Your task to perform on an android device: show emergency info Image 0: 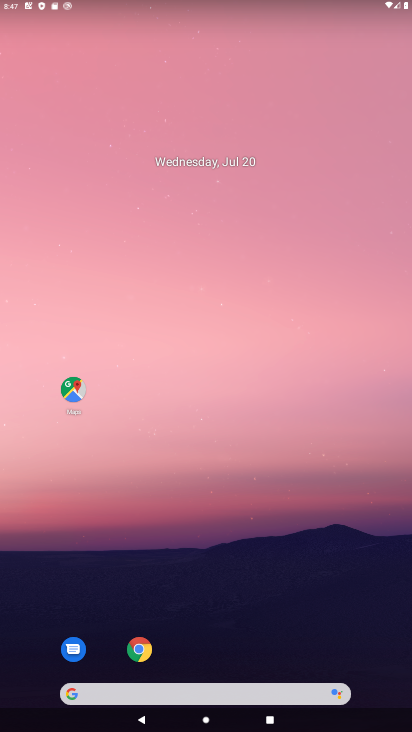
Step 0: drag from (195, 693) to (278, 0)
Your task to perform on an android device: show emergency info Image 1: 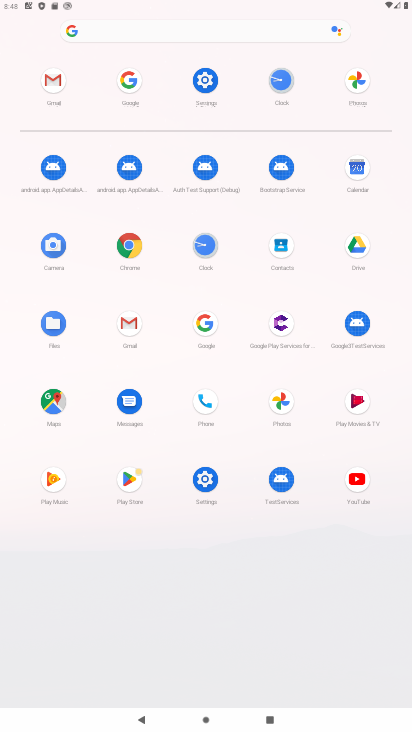
Step 1: click (204, 80)
Your task to perform on an android device: show emergency info Image 2: 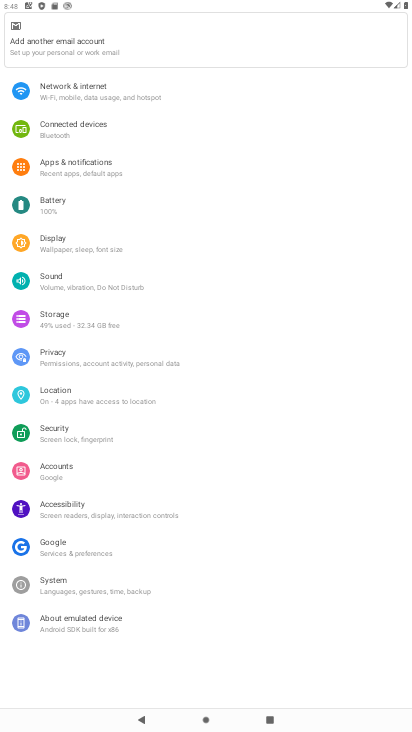
Step 2: click (55, 623)
Your task to perform on an android device: show emergency info Image 3: 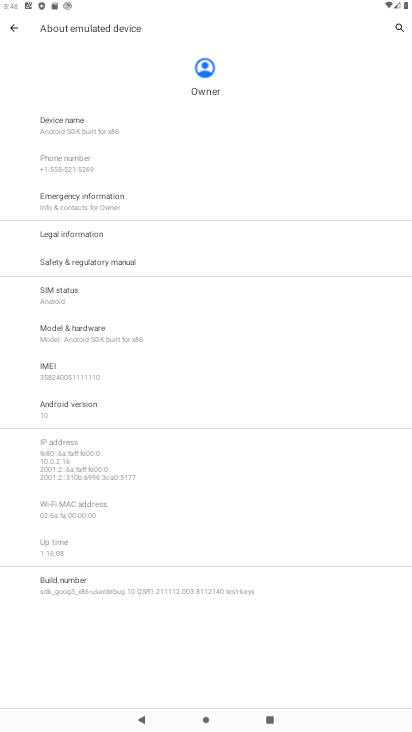
Step 3: click (83, 202)
Your task to perform on an android device: show emergency info Image 4: 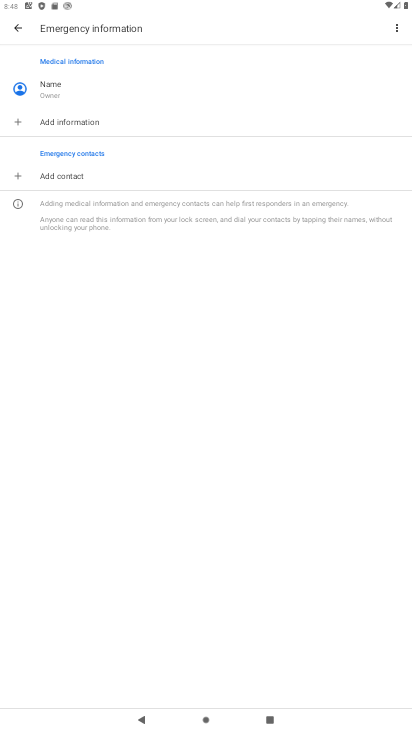
Step 4: task complete